Your task to perform on an android device: Search for the best rated 4k tvs on Walmart. Image 0: 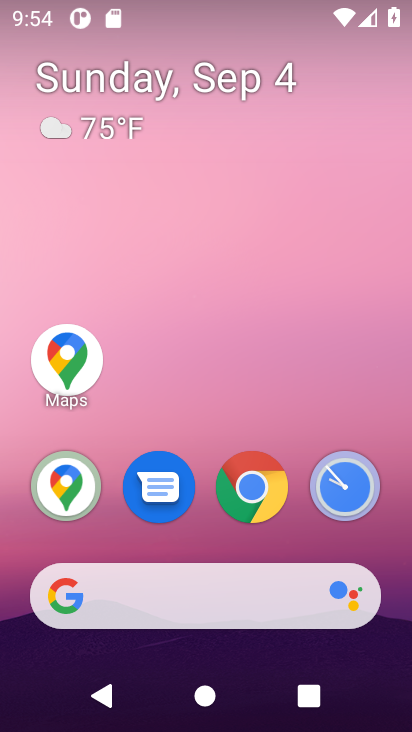
Step 0: click (240, 472)
Your task to perform on an android device: Search for the best rated 4k tvs on Walmart. Image 1: 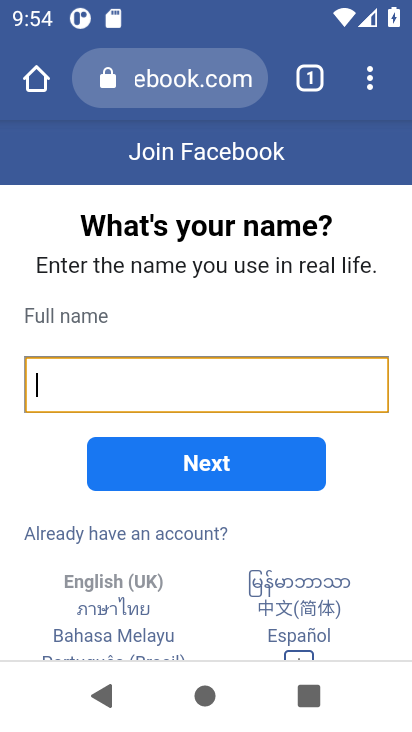
Step 1: click (39, 79)
Your task to perform on an android device: Search for the best rated 4k tvs on Walmart. Image 2: 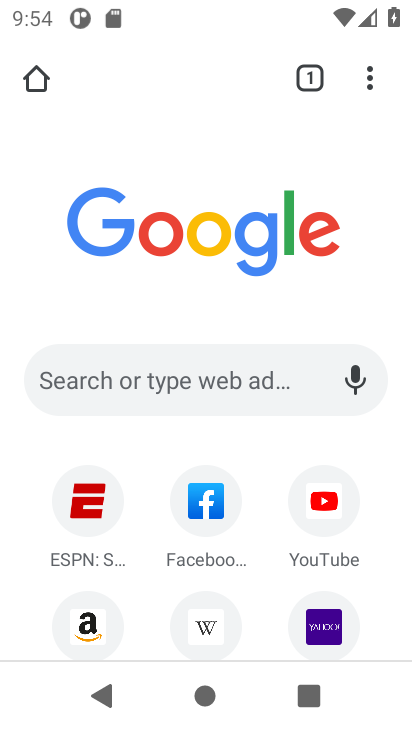
Step 2: click (350, 630)
Your task to perform on an android device: Search for the best rated 4k tvs on Walmart. Image 3: 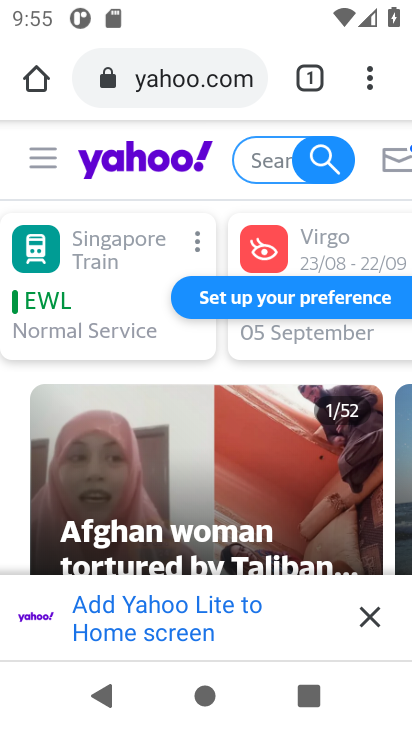
Step 3: click (363, 633)
Your task to perform on an android device: Search for the best rated 4k tvs on Walmart. Image 4: 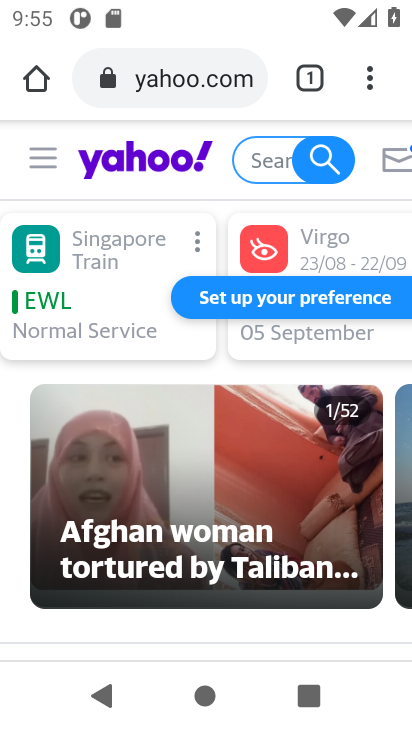
Step 4: task complete